Your task to perform on an android device: Do I have any events this weekend? Image 0: 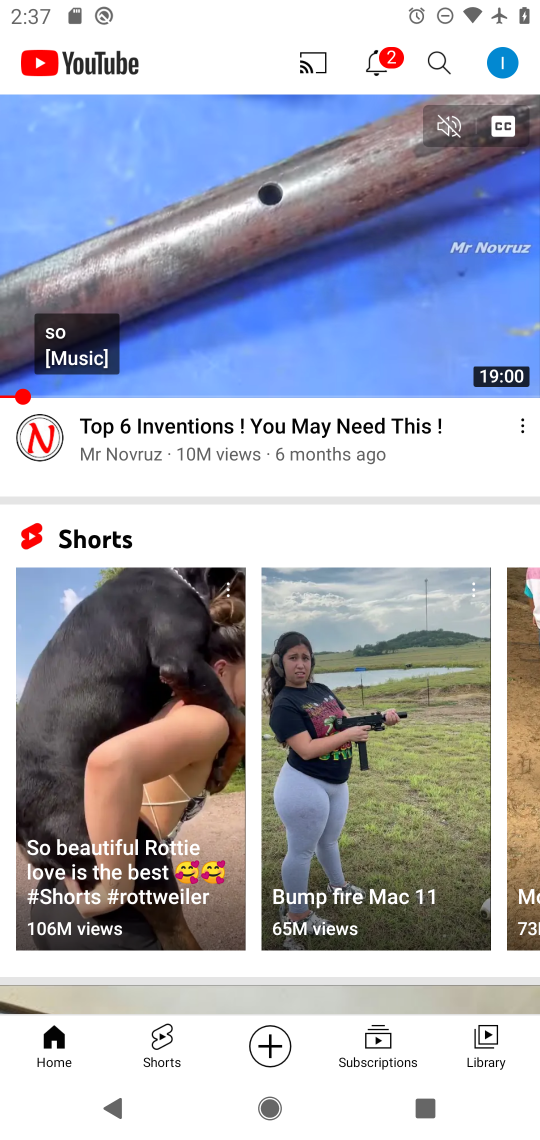
Step 0: press home button
Your task to perform on an android device: Do I have any events this weekend? Image 1: 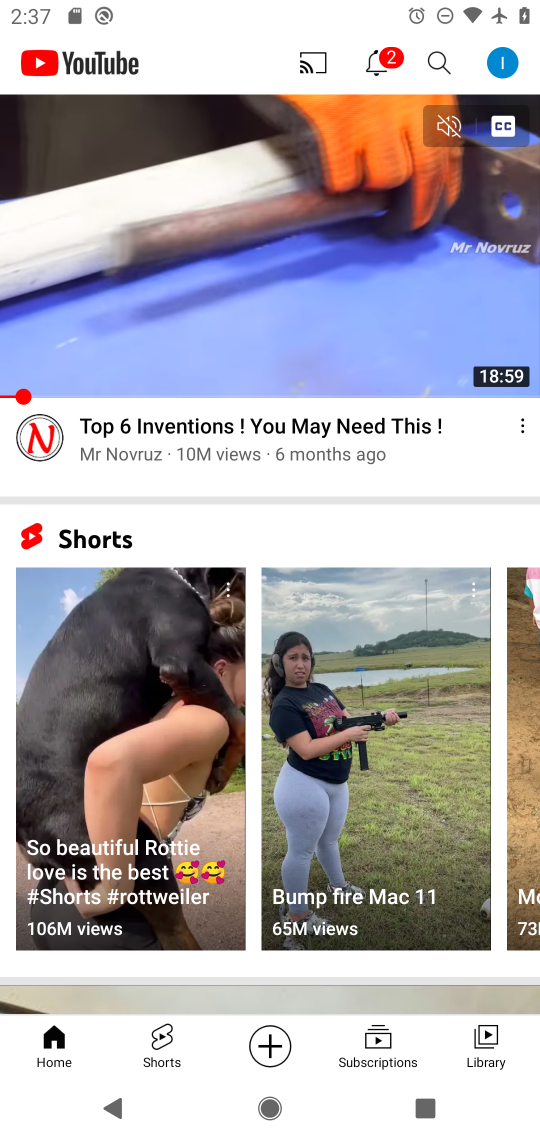
Step 1: press home button
Your task to perform on an android device: Do I have any events this weekend? Image 2: 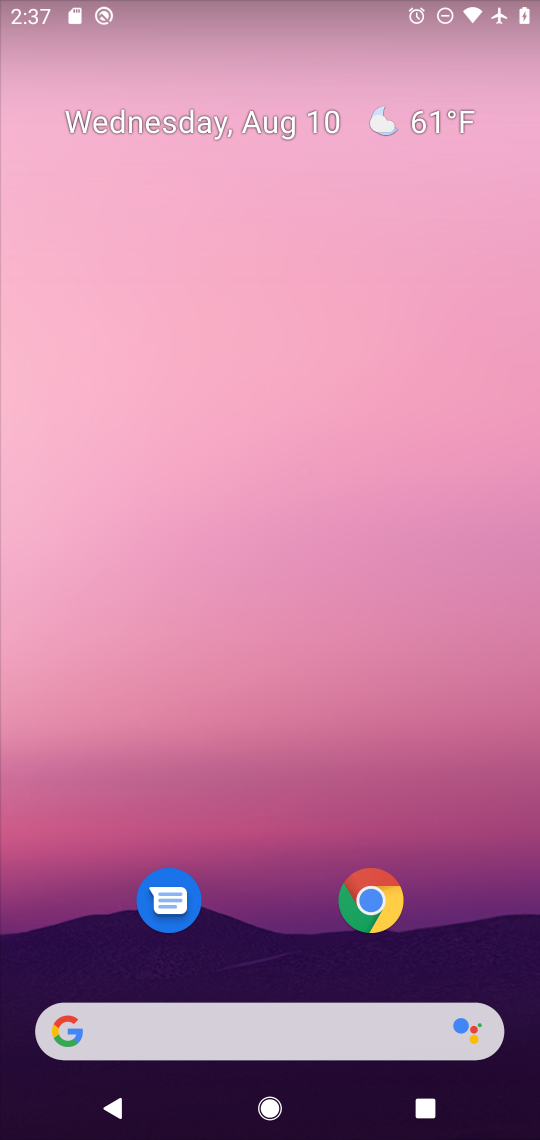
Step 2: drag from (279, 895) to (334, 1)
Your task to perform on an android device: Do I have any events this weekend? Image 3: 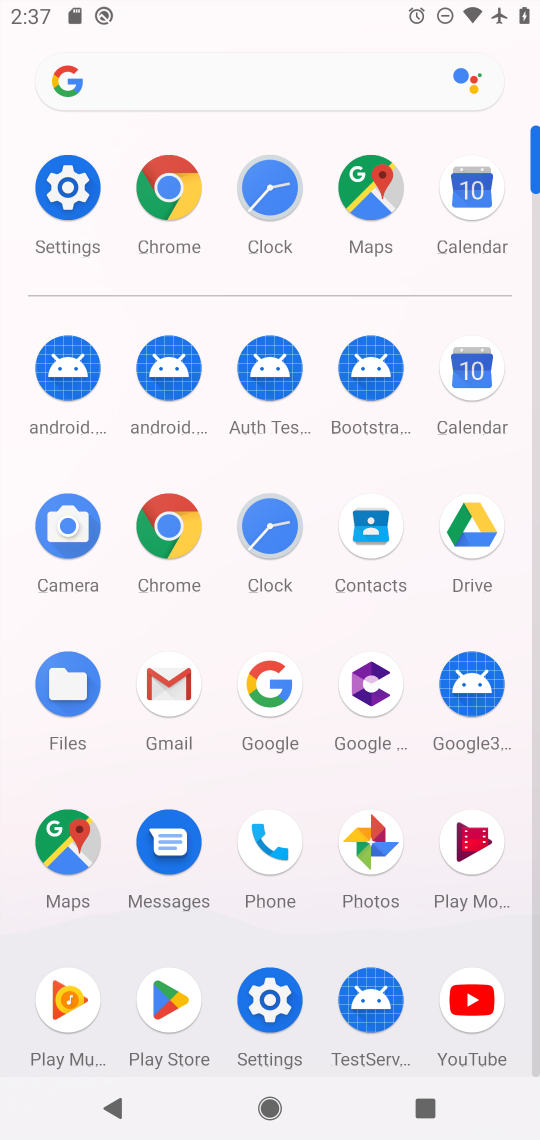
Step 3: click (480, 188)
Your task to perform on an android device: Do I have any events this weekend? Image 4: 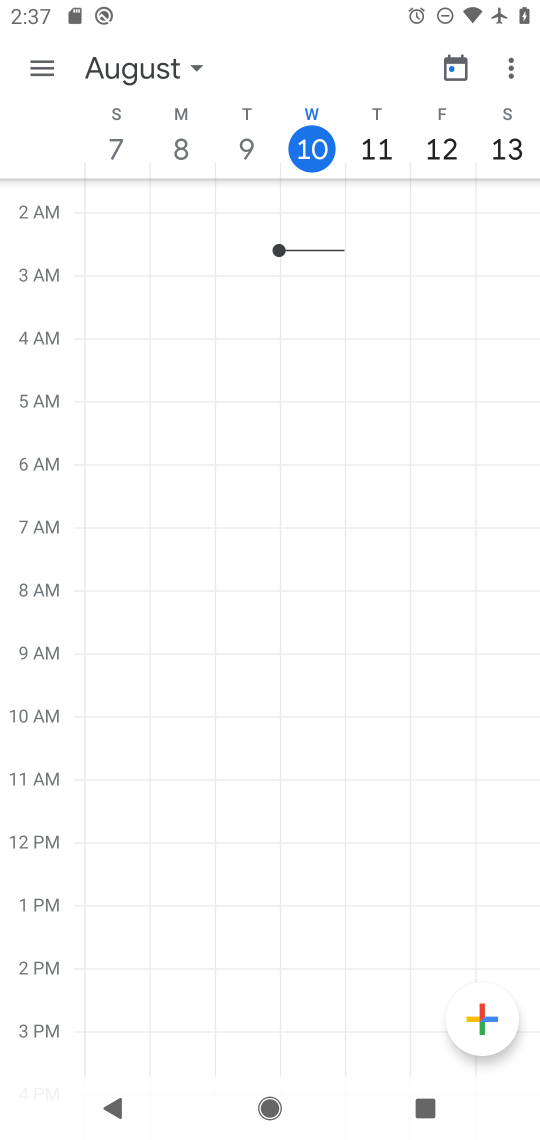
Step 4: task complete